Your task to perform on an android device: What's the news this week? Image 0: 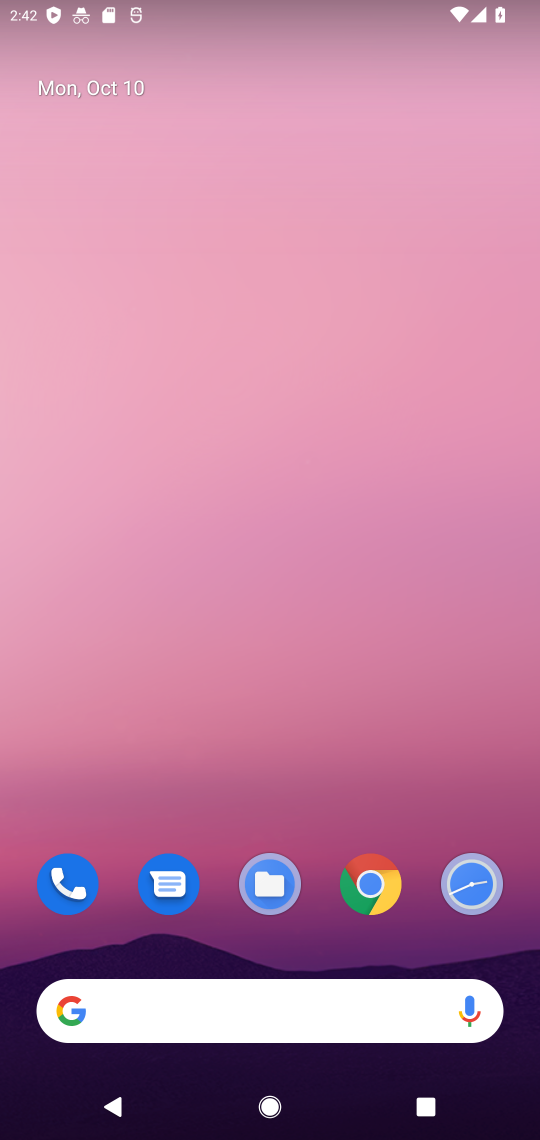
Step 0: click (299, 995)
Your task to perform on an android device: What's the news this week? Image 1: 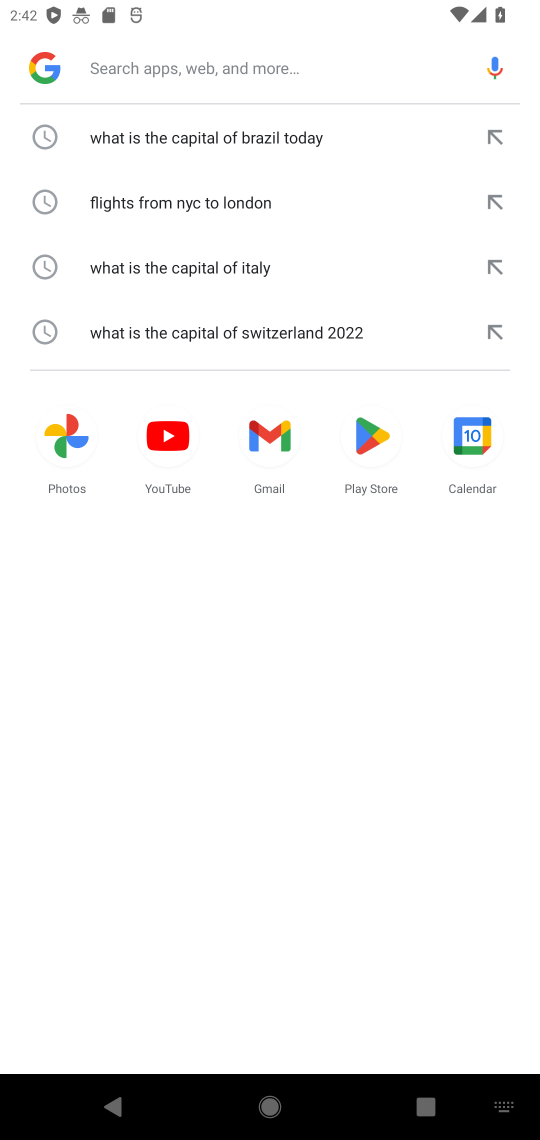
Step 1: type "What's the news this week?"
Your task to perform on an android device: What's the news this week? Image 2: 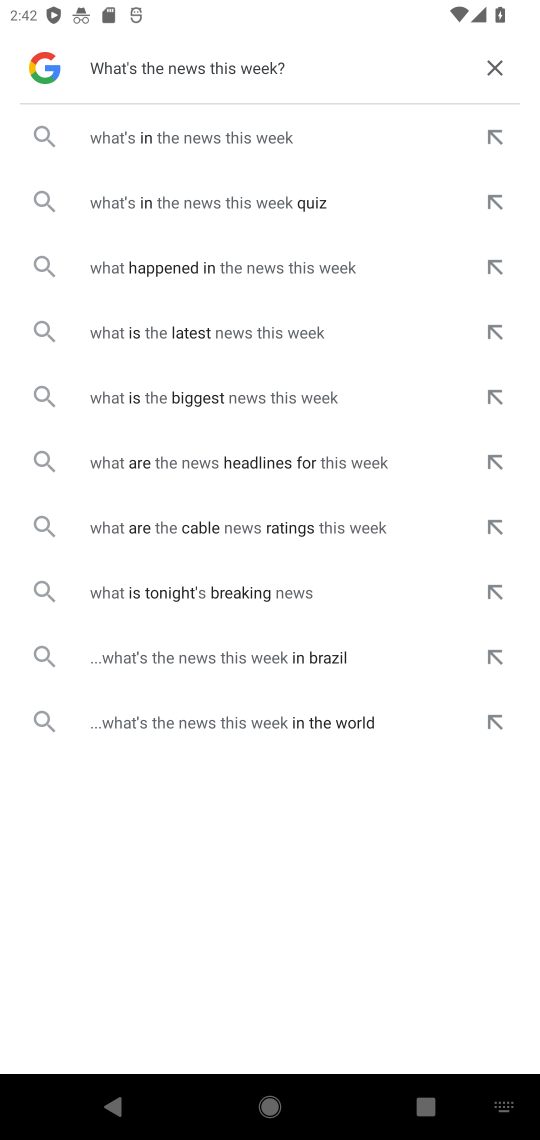
Step 2: click (205, 132)
Your task to perform on an android device: What's the news this week? Image 3: 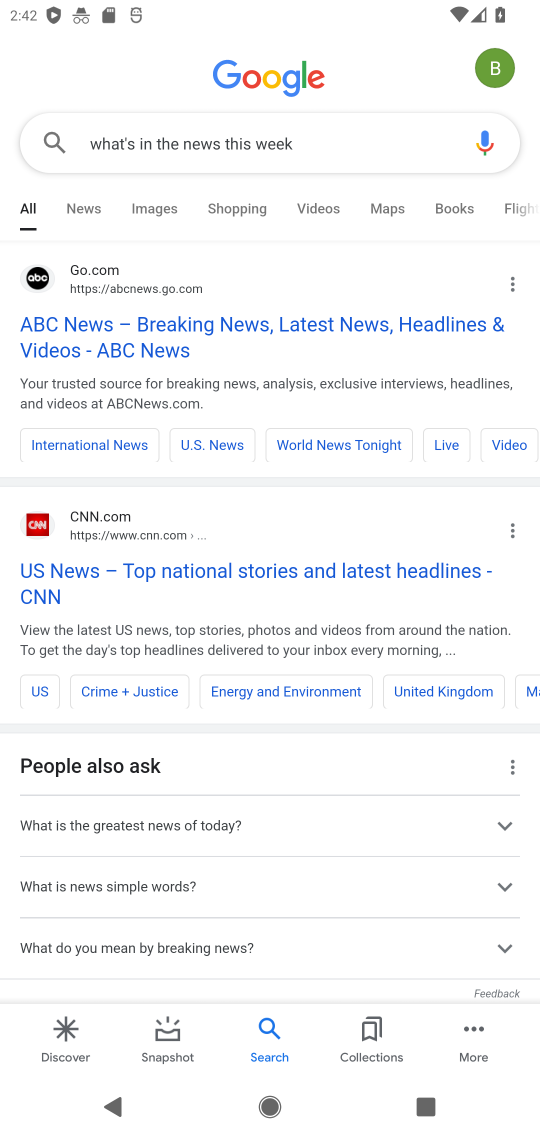
Step 3: click (122, 317)
Your task to perform on an android device: What's the news this week? Image 4: 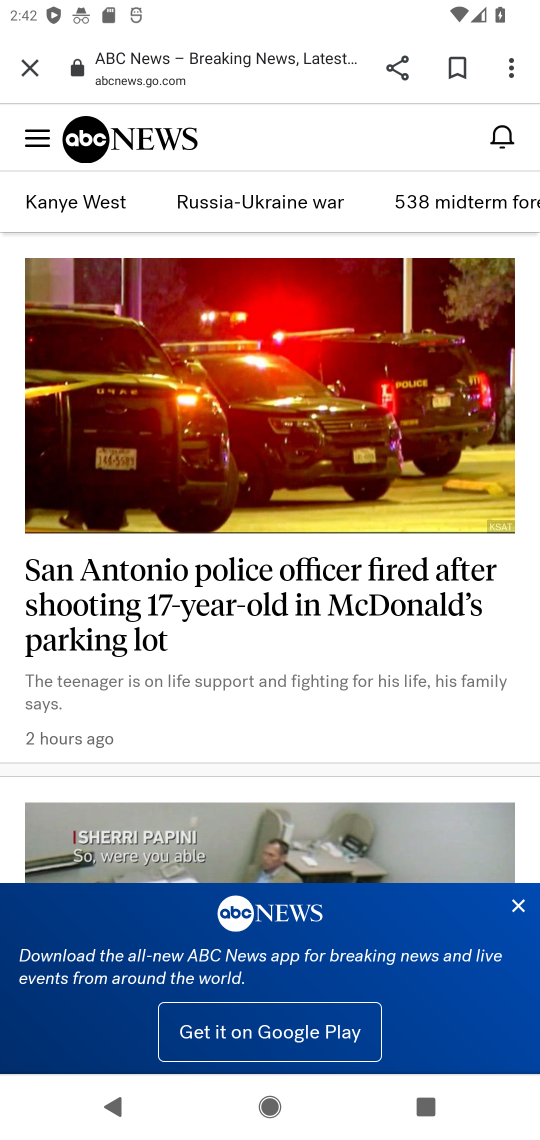
Step 4: click (516, 907)
Your task to perform on an android device: What's the news this week? Image 5: 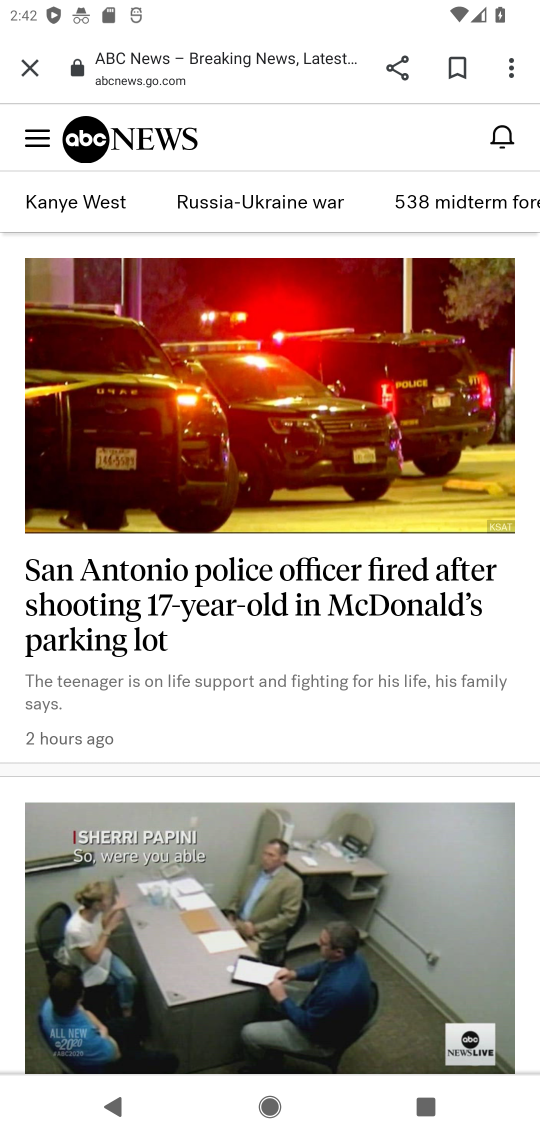
Step 5: task complete